Your task to perform on an android device: What is the recent news? Image 0: 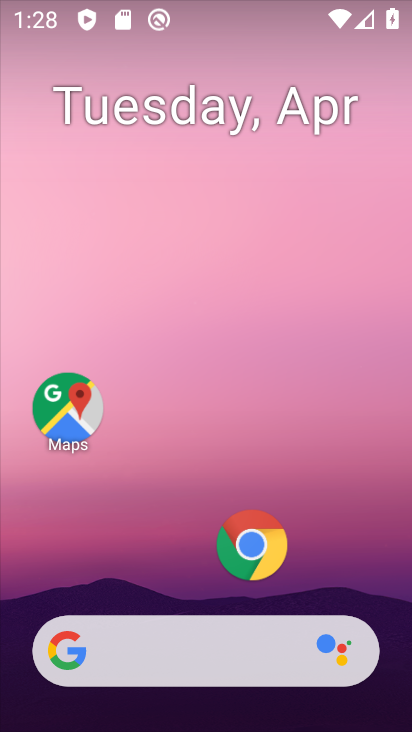
Step 0: drag from (164, 578) to (302, 118)
Your task to perform on an android device: What is the recent news? Image 1: 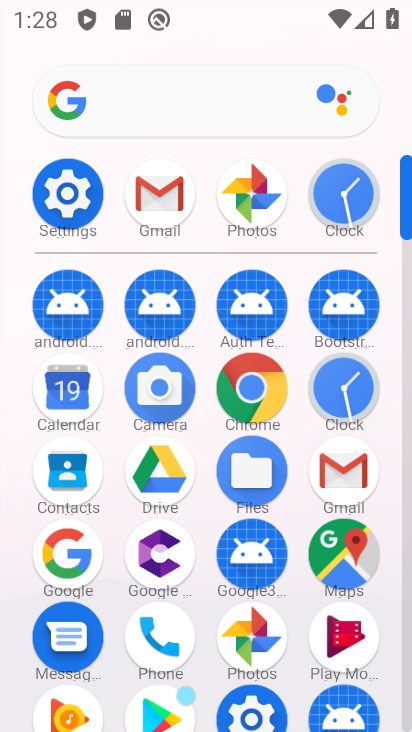
Step 1: click (254, 387)
Your task to perform on an android device: What is the recent news? Image 2: 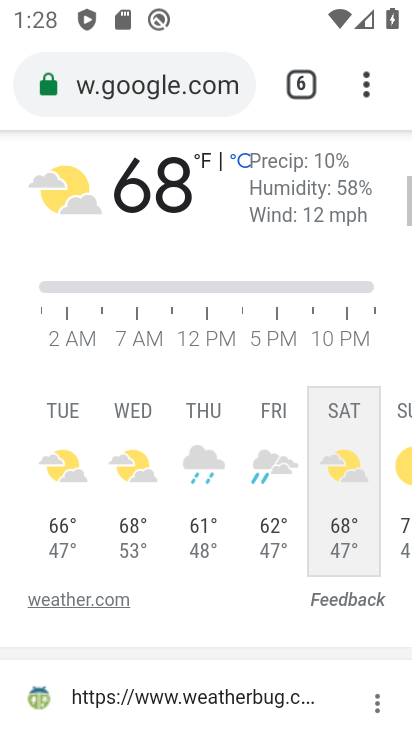
Step 2: click (363, 90)
Your task to perform on an android device: What is the recent news? Image 3: 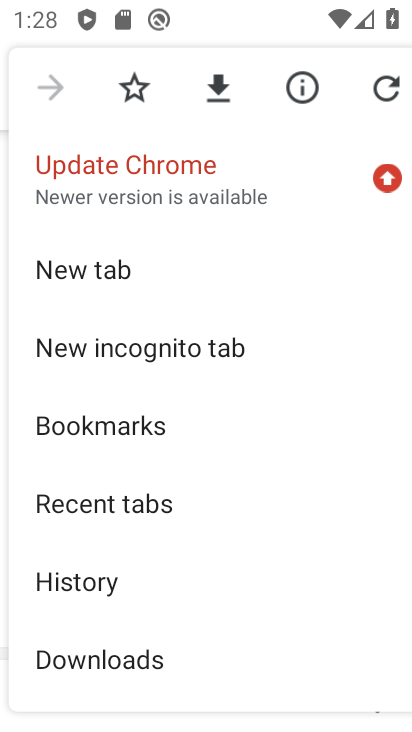
Step 3: click (133, 266)
Your task to perform on an android device: What is the recent news? Image 4: 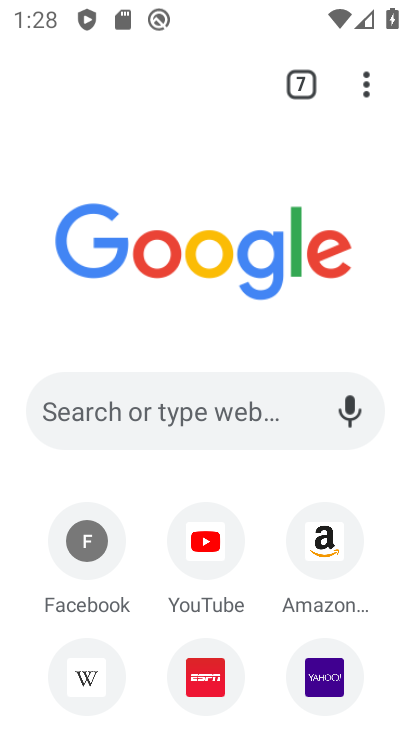
Step 4: click (137, 388)
Your task to perform on an android device: What is the recent news? Image 5: 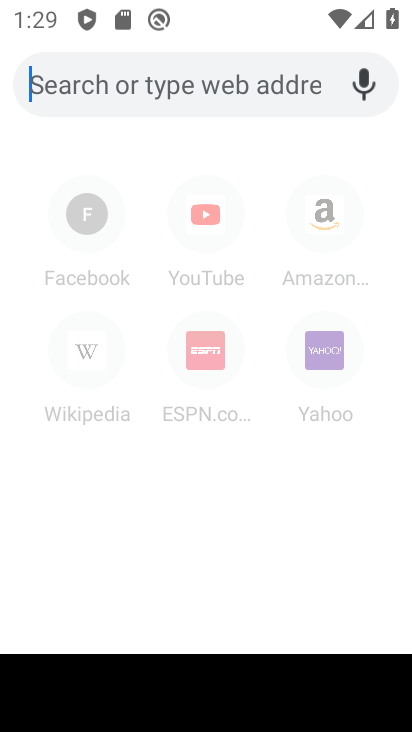
Step 5: click (199, 83)
Your task to perform on an android device: What is the recent news? Image 6: 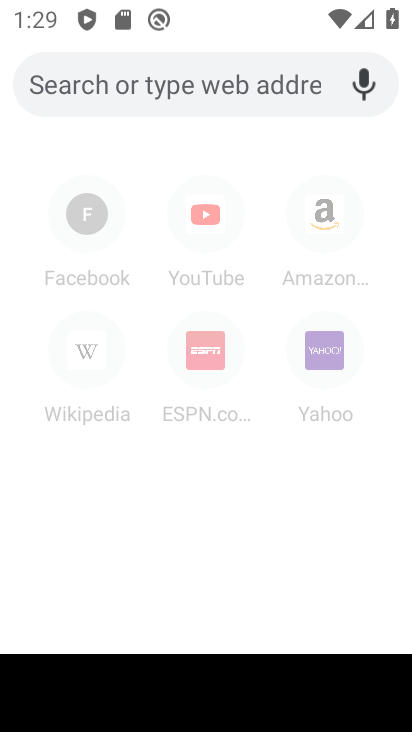
Step 6: type "What is the recent news?"
Your task to perform on an android device: What is the recent news? Image 7: 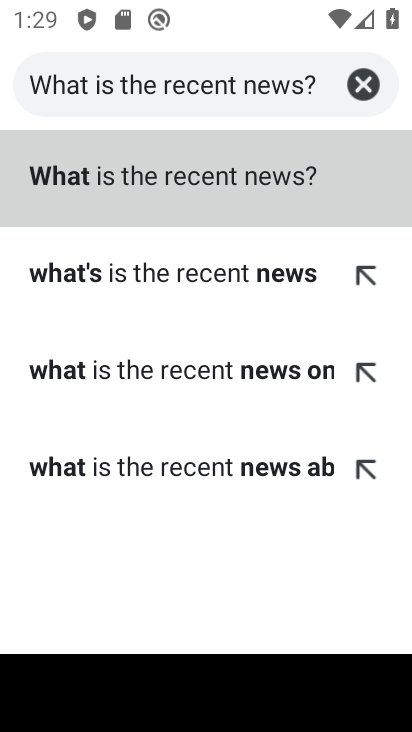
Step 7: click (176, 186)
Your task to perform on an android device: What is the recent news? Image 8: 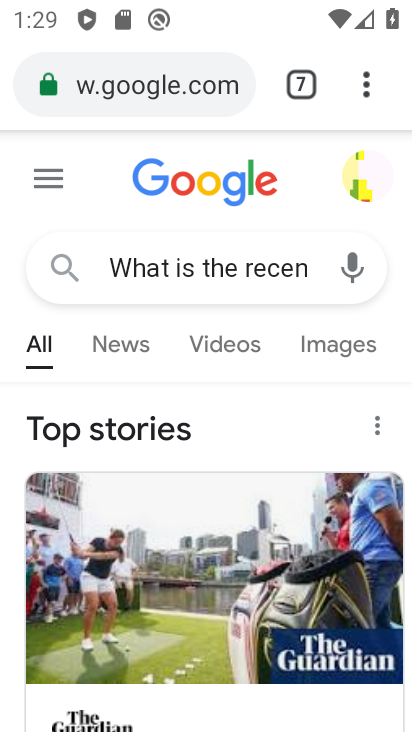
Step 8: task complete